Your task to perform on an android device: set an alarm Image 0: 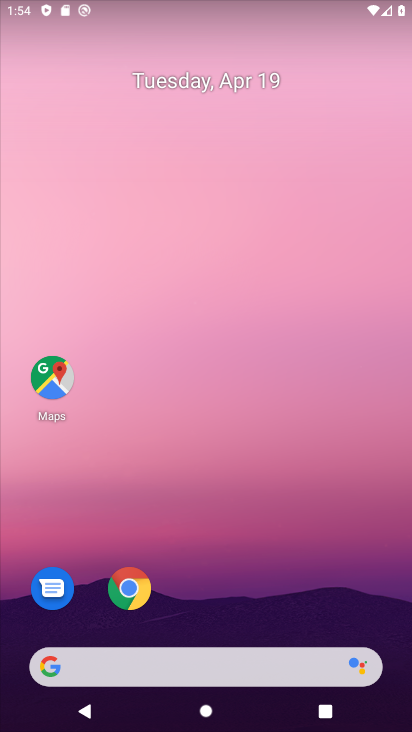
Step 0: drag from (229, 470) to (377, 87)
Your task to perform on an android device: set an alarm Image 1: 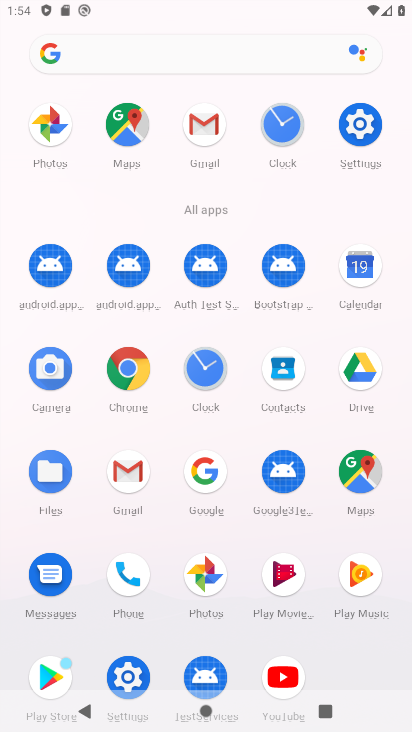
Step 1: click (214, 358)
Your task to perform on an android device: set an alarm Image 2: 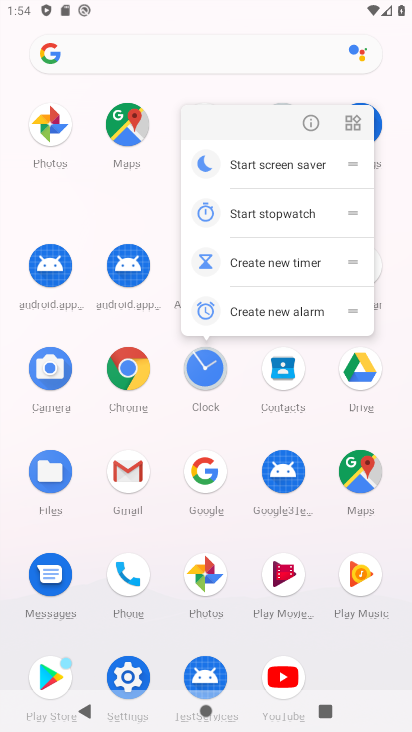
Step 2: click (198, 375)
Your task to perform on an android device: set an alarm Image 3: 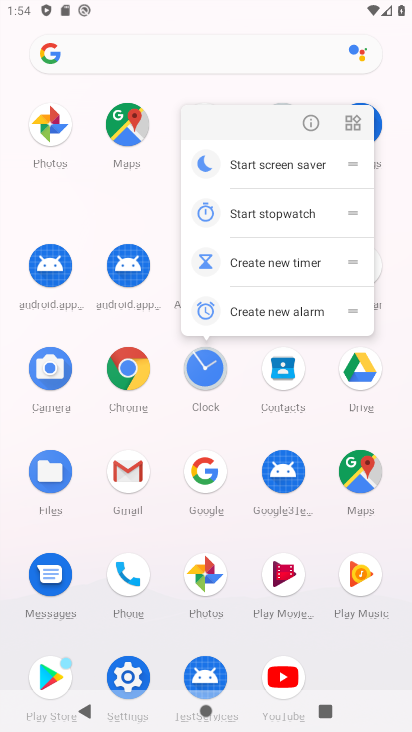
Step 3: click (186, 372)
Your task to perform on an android device: set an alarm Image 4: 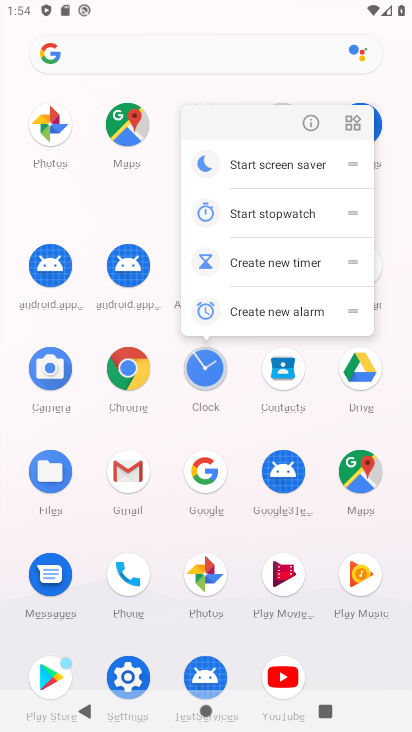
Step 4: click (207, 371)
Your task to perform on an android device: set an alarm Image 5: 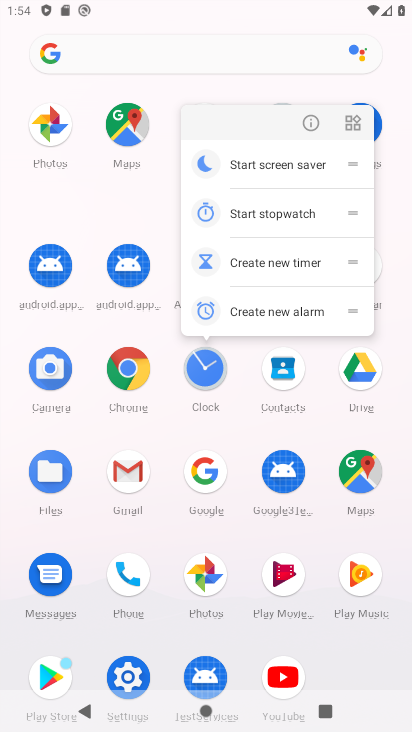
Step 5: click (207, 371)
Your task to perform on an android device: set an alarm Image 6: 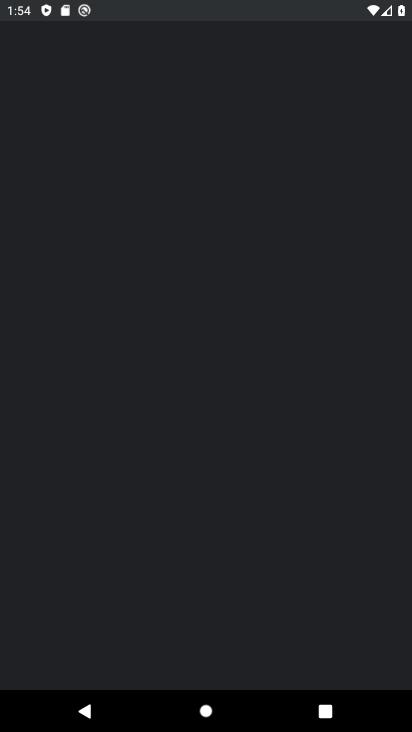
Step 6: drag from (207, 371) to (216, 459)
Your task to perform on an android device: set an alarm Image 7: 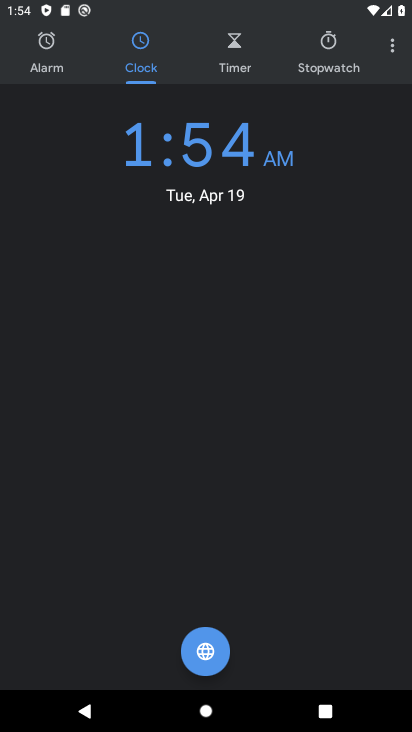
Step 7: click (53, 65)
Your task to perform on an android device: set an alarm Image 8: 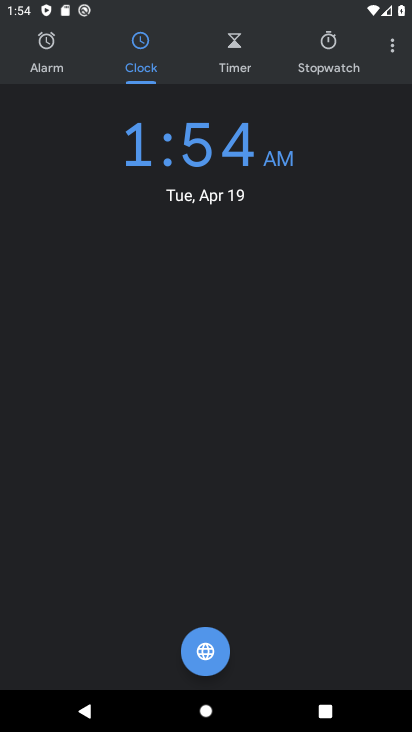
Step 8: click (48, 49)
Your task to perform on an android device: set an alarm Image 9: 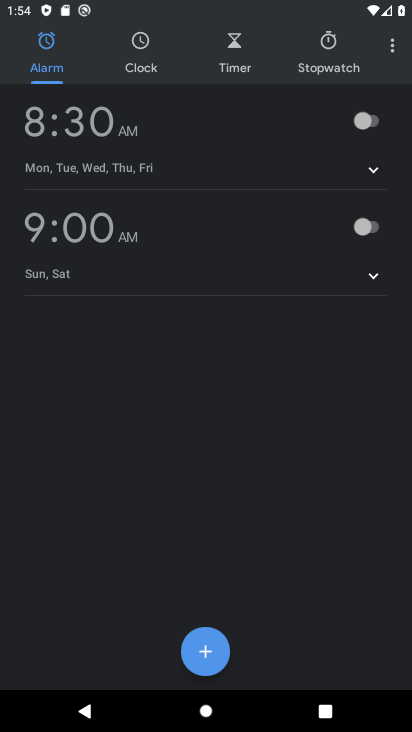
Step 9: click (381, 117)
Your task to perform on an android device: set an alarm Image 10: 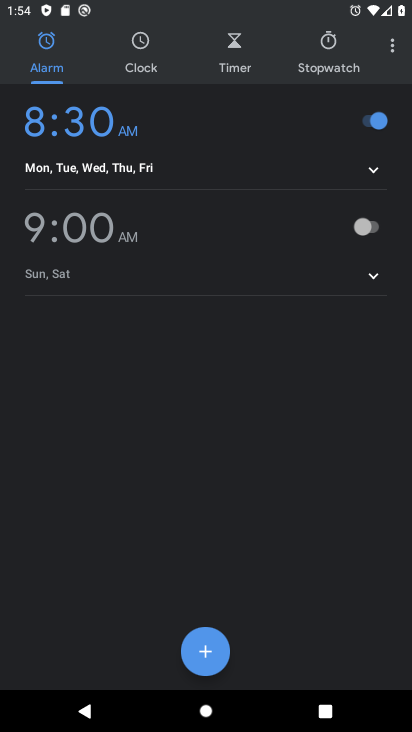
Step 10: task complete